Your task to perform on an android device: set the timer Image 0: 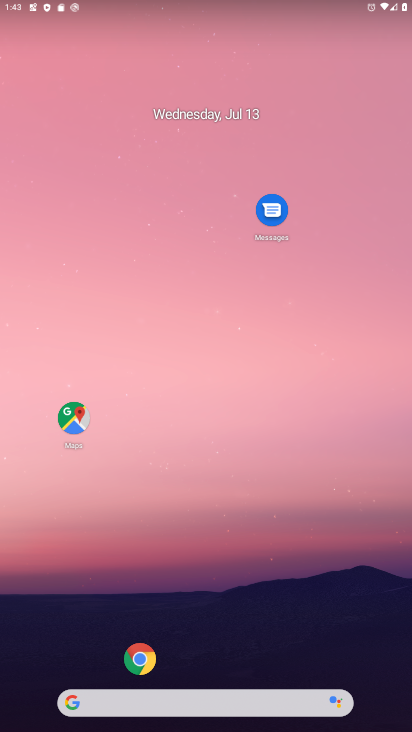
Step 0: drag from (60, 602) to (206, 29)
Your task to perform on an android device: set the timer Image 1: 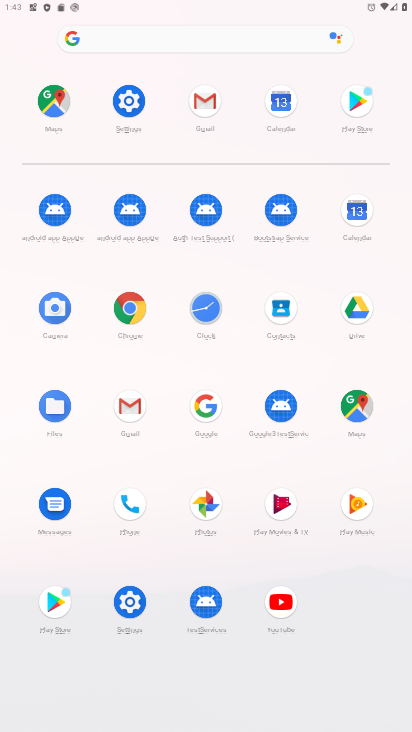
Step 1: click (216, 305)
Your task to perform on an android device: set the timer Image 2: 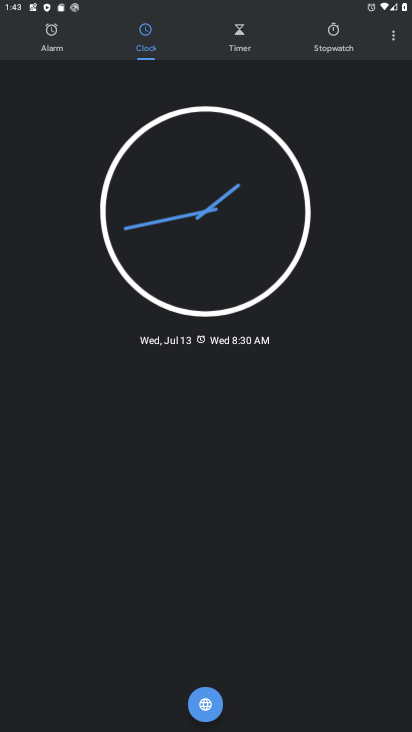
Step 2: click (238, 46)
Your task to perform on an android device: set the timer Image 3: 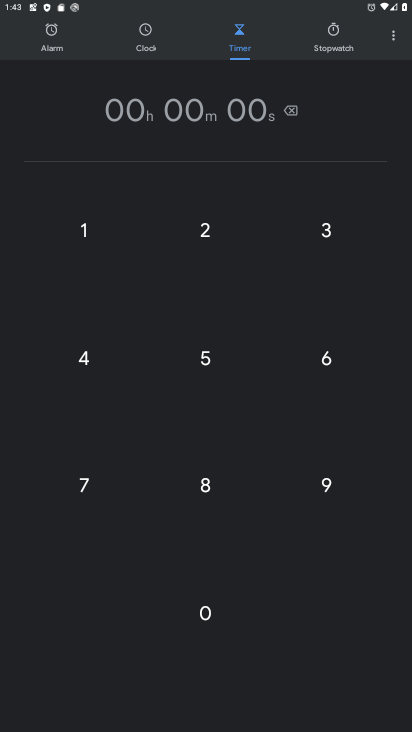
Step 3: click (202, 340)
Your task to perform on an android device: set the timer Image 4: 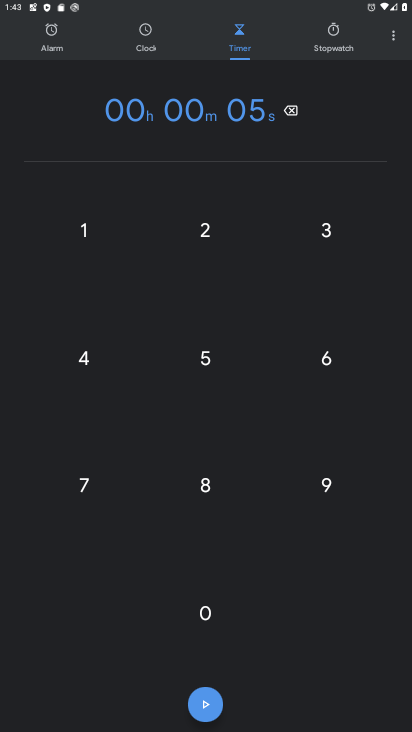
Step 4: task complete